Your task to perform on an android device: Open network settings Image 0: 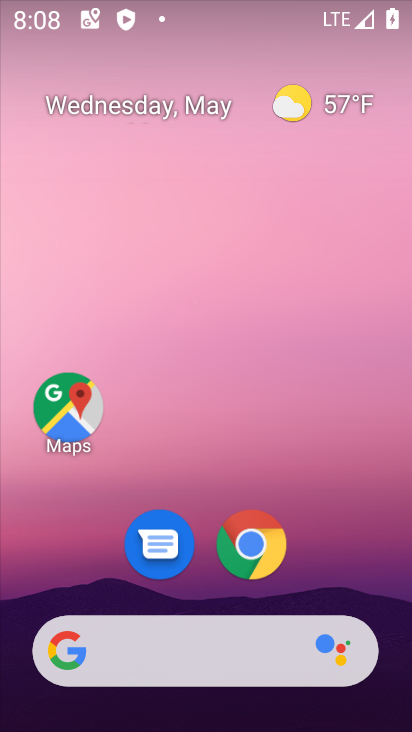
Step 0: drag from (316, 533) to (164, 9)
Your task to perform on an android device: Open network settings Image 1: 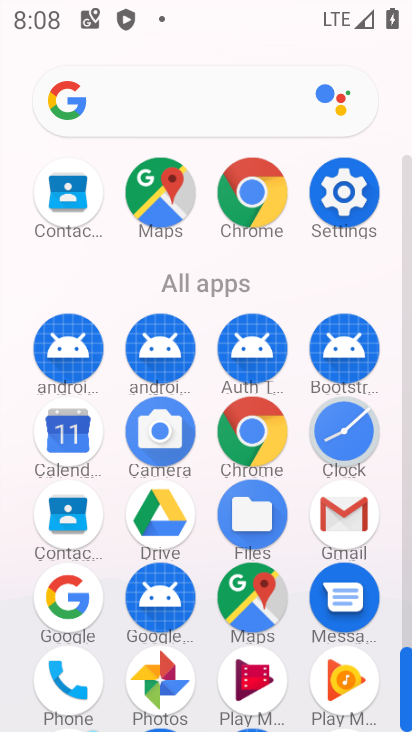
Step 1: drag from (19, 570) to (19, 308)
Your task to perform on an android device: Open network settings Image 2: 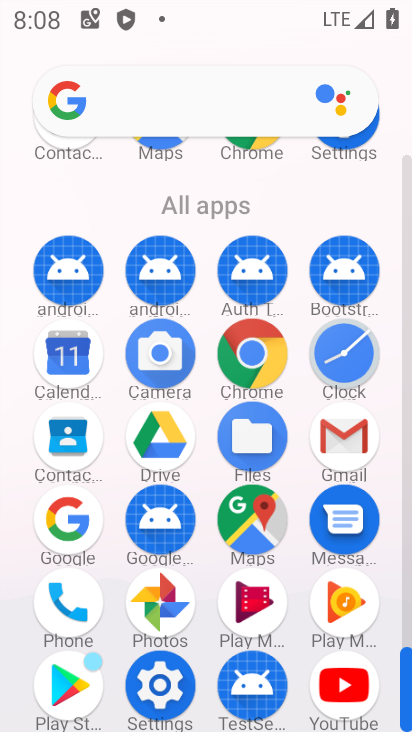
Step 2: drag from (12, 525) to (28, 268)
Your task to perform on an android device: Open network settings Image 3: 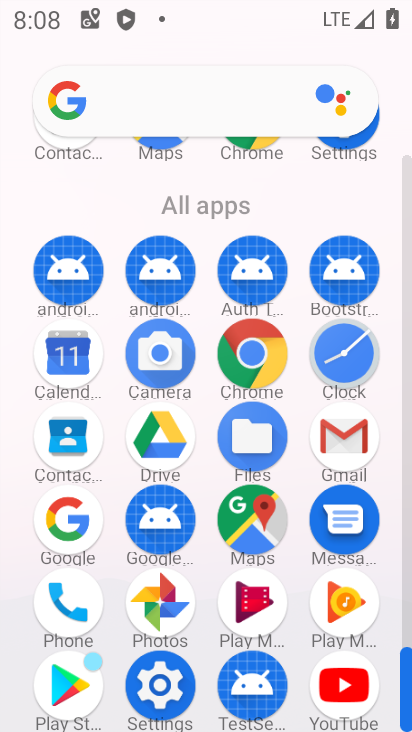
Step 3: click (158, 684)
Your task to perform on an android device: Open network settings Image 4: 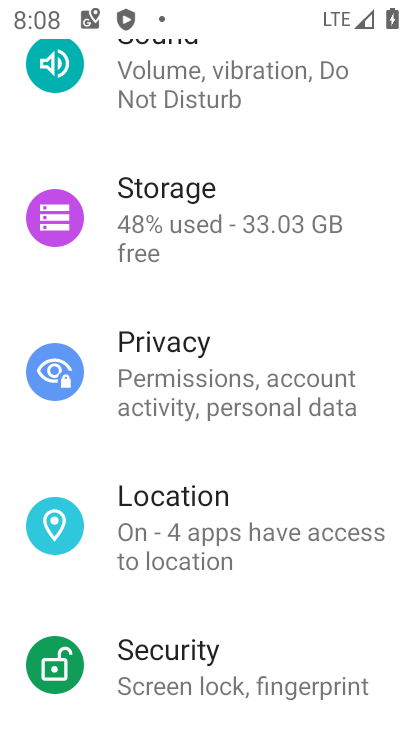
Step 4: drag from (287, 103) to (285, 615)
Your task to perform on an android device: Open network settings Image 5: 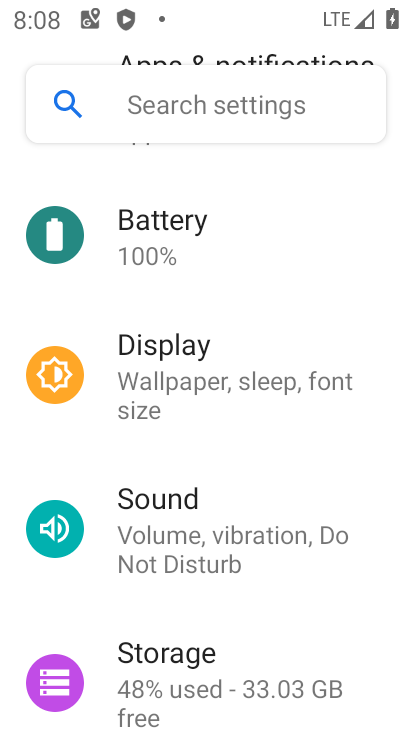
Step 5: drag from (248, 295) to (221, 635)
Your task to perform on an android device: Open network settings Image 6: 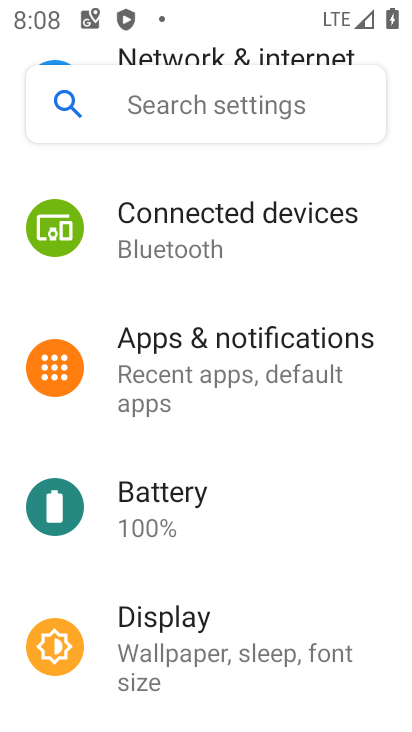
Step 6: drag from (287, 230) to (307, 614)
Your task to perform on an android device: Open network settings Image 7: 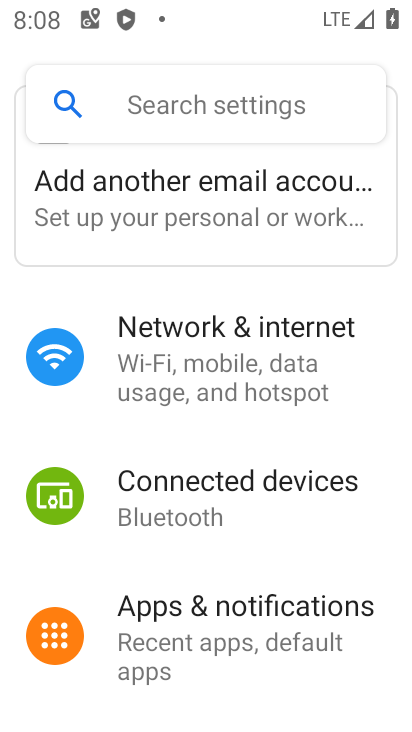
Step 7: click (267, 341)
Your task to perform on an android device: Open network settings Image 8: 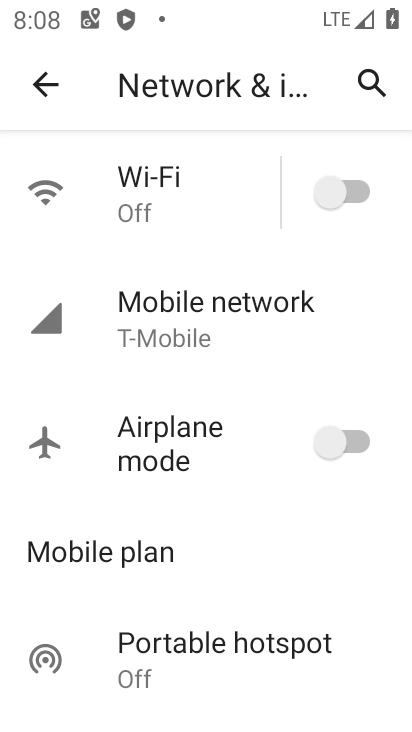
Step 8: task complete